Your task to perform on an android device: Is it going to rain this weekend? Image 0: 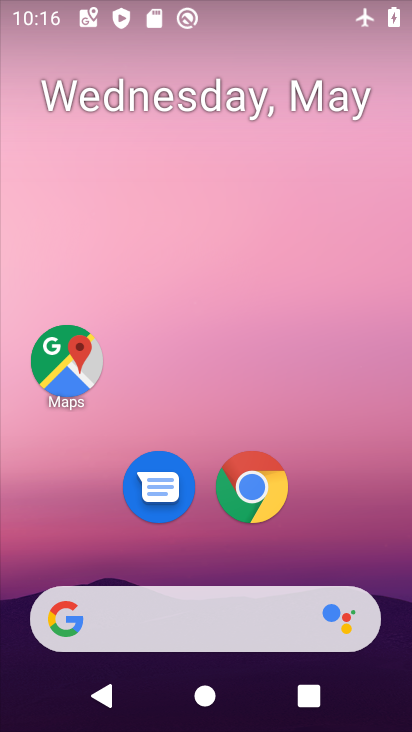
Step 0: drag from (221, 563) to (359, 48)
Your task to perform on an android device: Is it going to rain this weekend? Image 1: 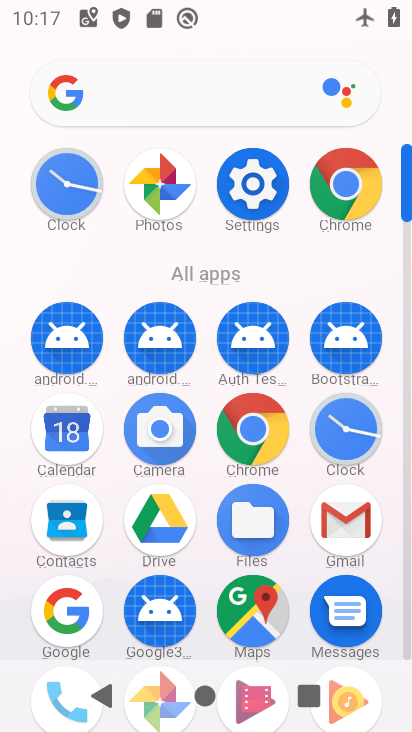
Step 1: drag from (203, 568) to (312, 5)
Your task to perform on an android device: Is it going to rain this weekend? Image 2: 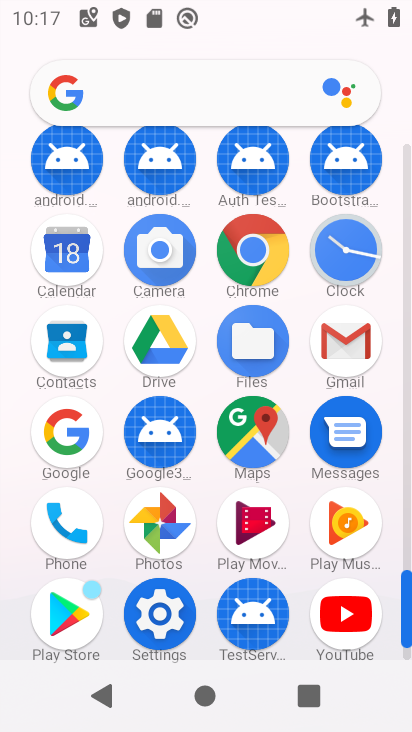
Step 2: click (69, 421)
Your task to perform on an android device: Is it going to rain this weekend? Image 3: 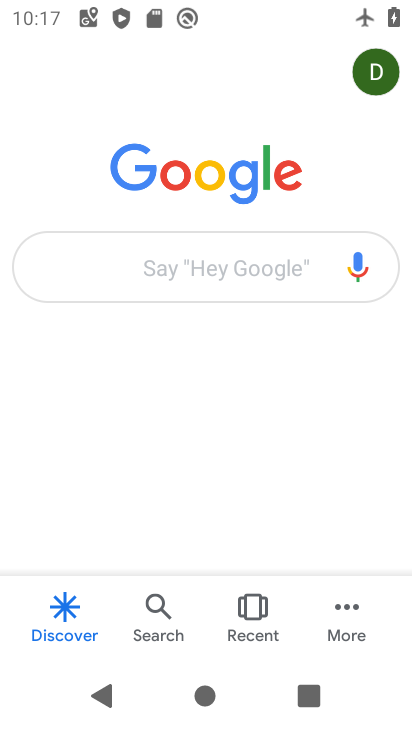
Step 3: click (196, 261)
Your task to perform on an android device: Is it going to rain this weekend? Image 4: 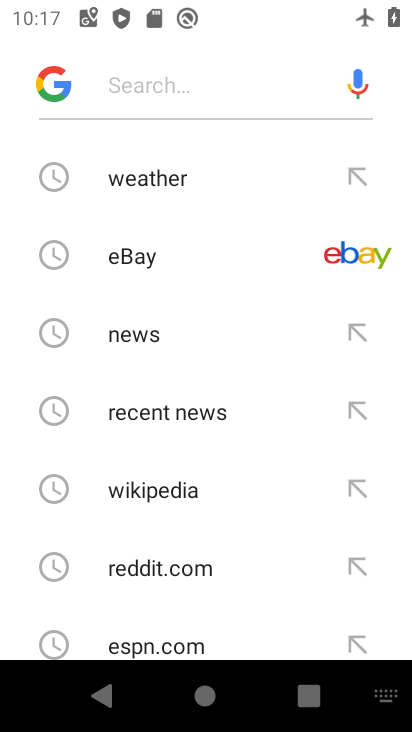
Step 4: click (90, 183)
Your task to perform on an android device: Is it going to rain this weekend? Image 5: 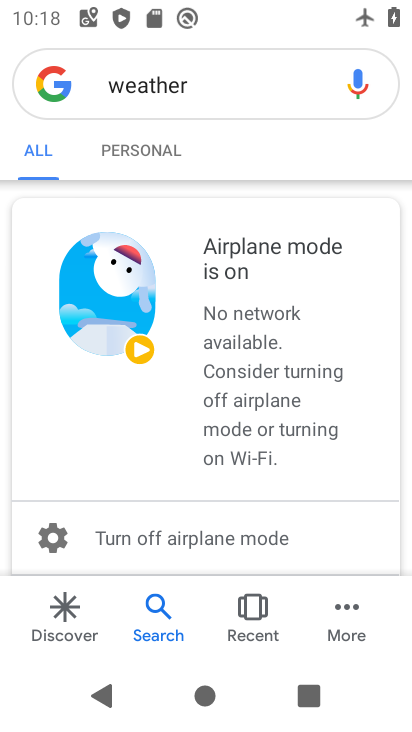
Step 5: task complete